Your task to perform on an android device: turn off javascript in the chrome app Image 0: 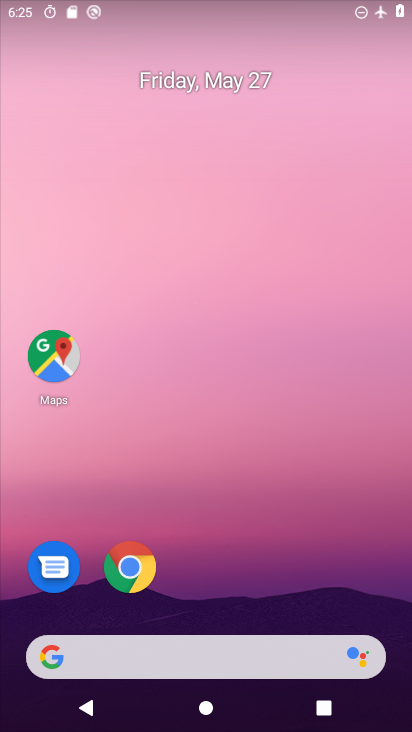
Step 0: click (117, 565)
Your task to perform on an android device: turn off javascript in the chrome app Image 1: 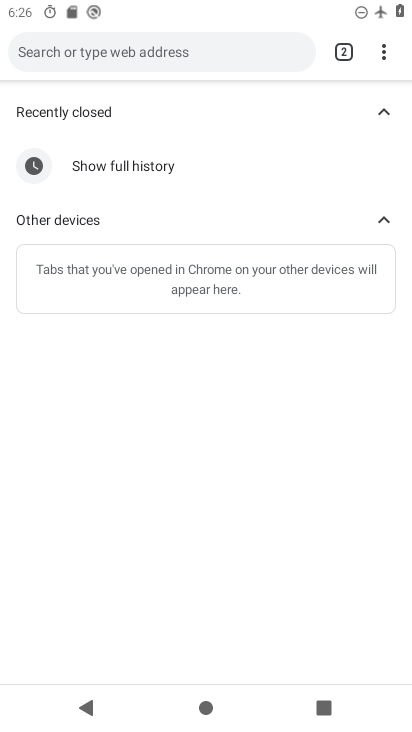
Step 1: click (385, 49)
Your task to perform on an android device: turn off javascript in the chrome app Image 2: 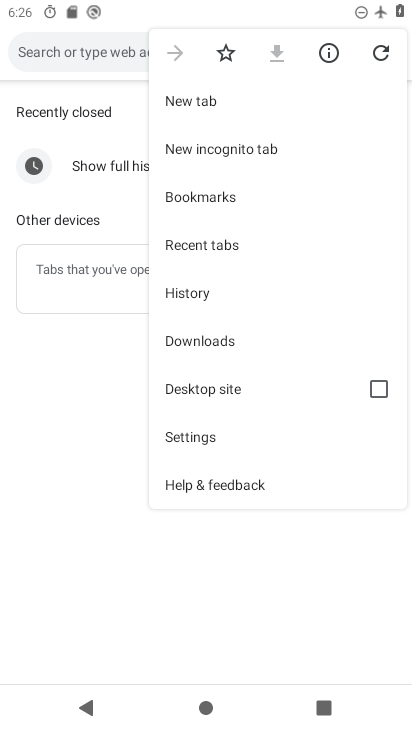
Step 2: click (202, 444)
Your task to perform on an android device: turn off javascript in the chrome app Image 3: 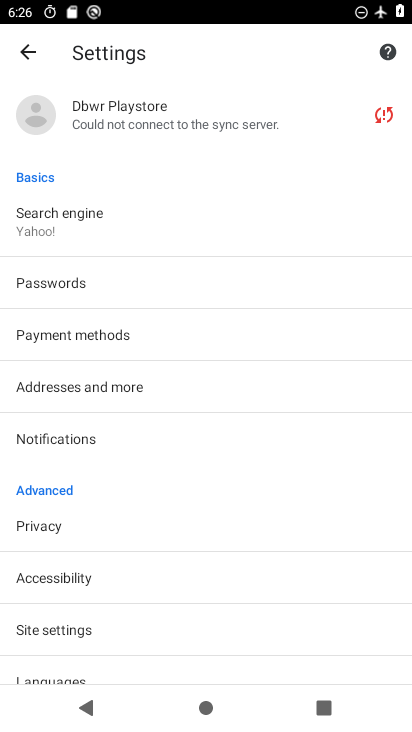
Step 3: click (66, 631)
Your task to perform on an android device: turn off javascript in the chrome app Image 4: 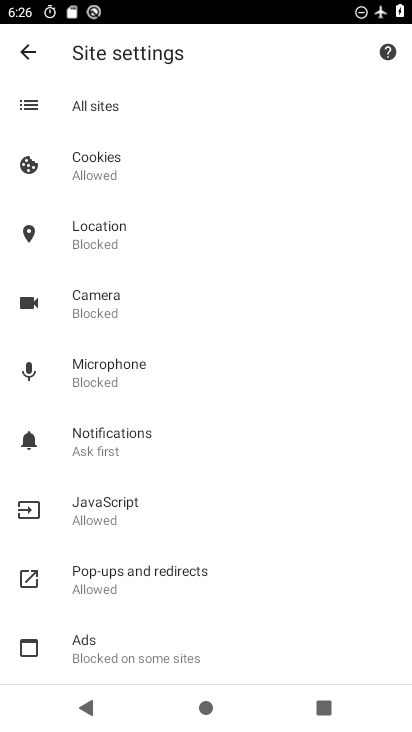
Step 4: click (90, 520)
Your task to perform on an android device: turn off javascript in the chrome app Image 5: 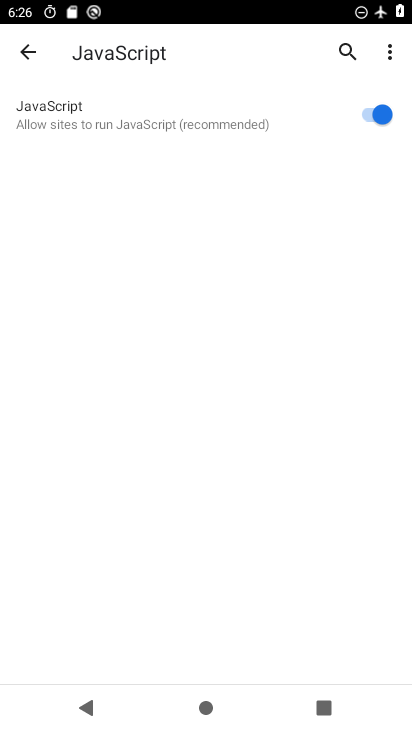
Step 5: click (371, 106)
Your task to perform on an android device: turn off javascript in the chrome app Image 6: 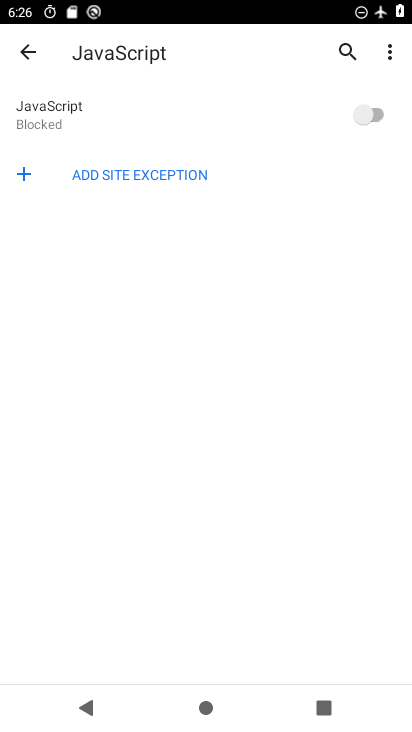
Step 6: task complete